Your task to perform on an android device: What is the news today? Image 0: 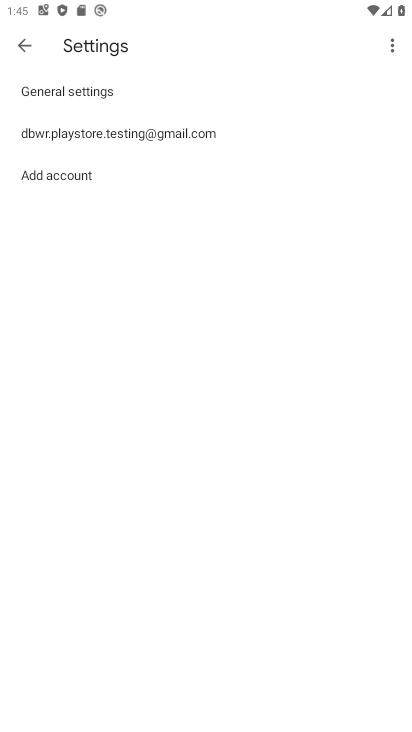
Step 0: press back button
Your task to perform on an android device: What is the news today? Image 1: 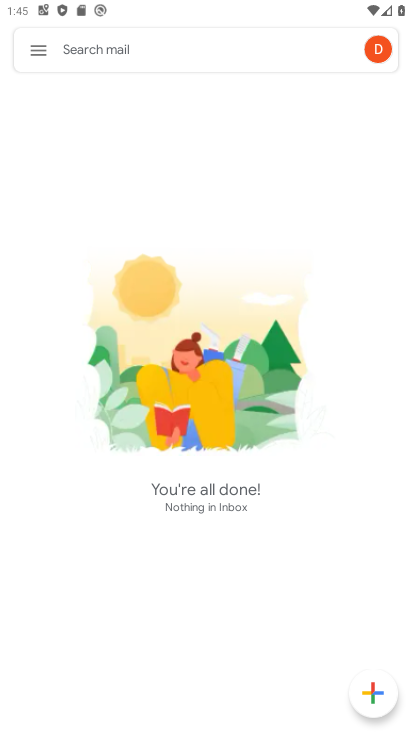
Step 1: press back button
Your task to perform on an android device: What is the news today? Image 2: 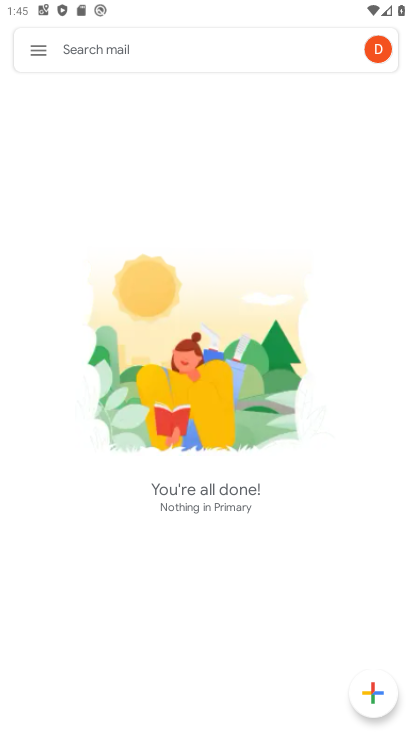
Step 2: press home button
Your task to perform on an android device: What is the news today? Image 3: 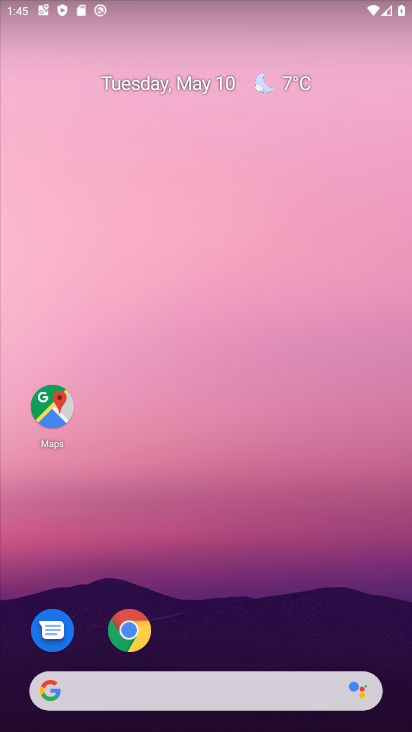
Step 3: drag from (233, 622) to (149, 31)
Your task to perform on an android device: What is the news today? Image 4: 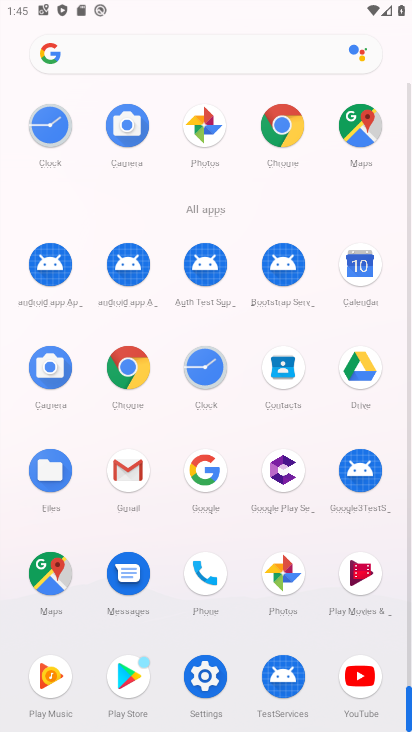
Step 4: click (125, 368)
Your task to perform on an android device: What is the news today? Image 5: 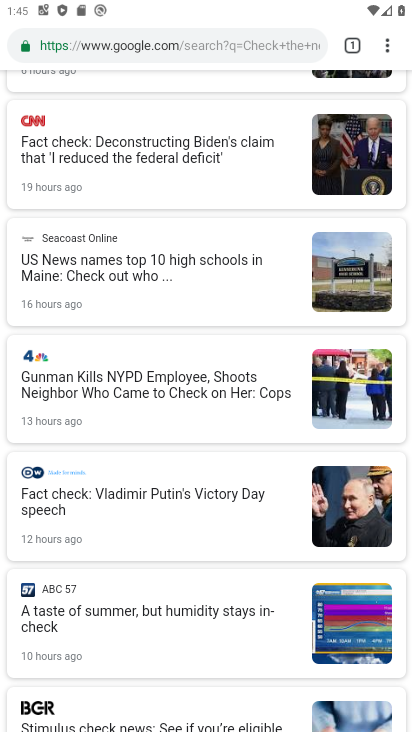
Step 5: click (174, 39)
Your task to perform on an android device: What is the news today? Image 6: 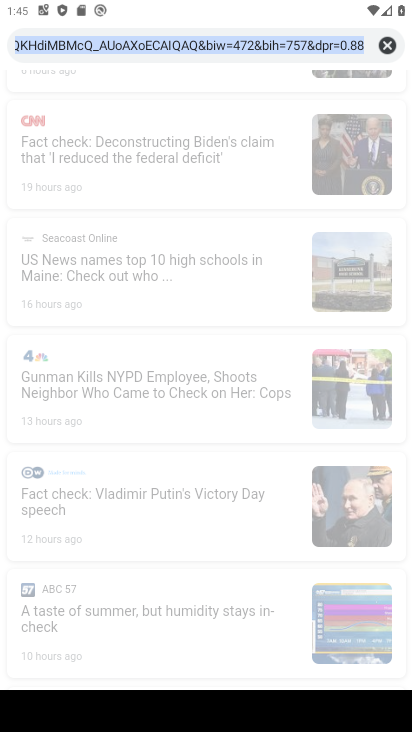
Step 6: click (385, 41)
Your task to perform on an android device: What is the news today? Image 7: 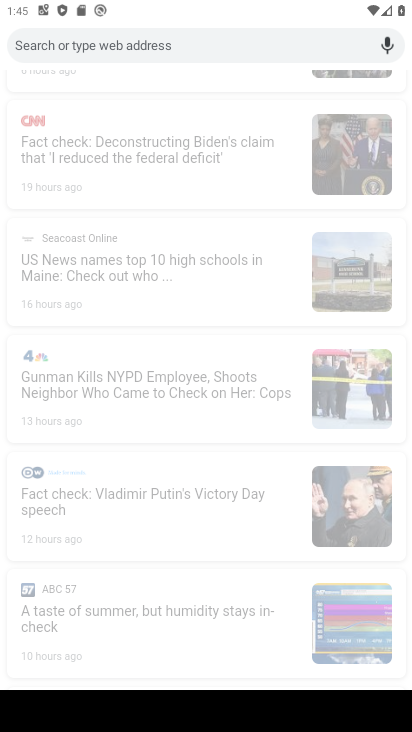
Step 7: type "What is the news today?"
Your task to perform on an android device: What is the news today? Image 8: 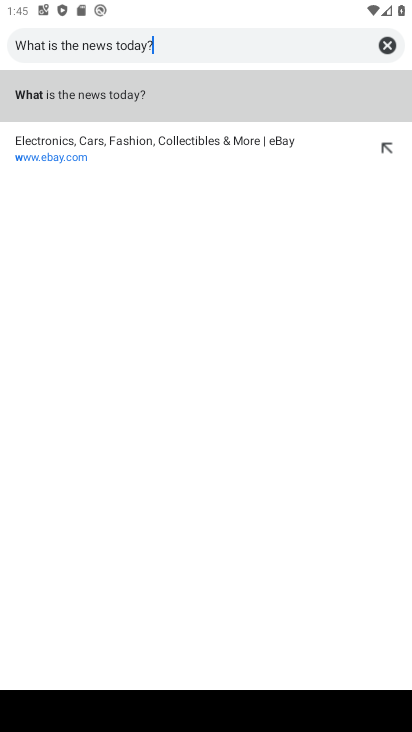
Step 8: type ""
Your task to perform on an android device: What is the news today? Image 9: 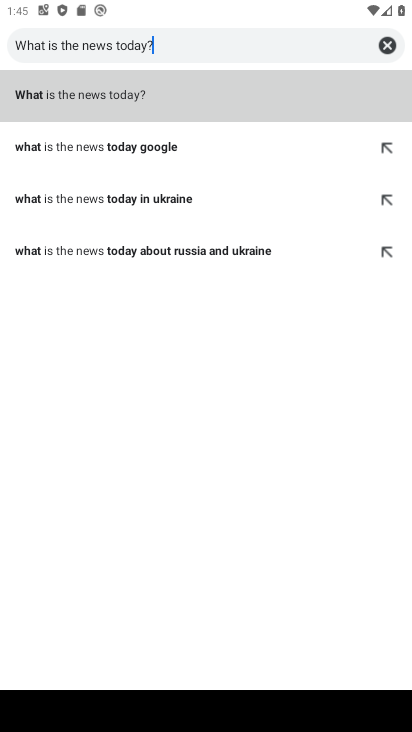
Step 9: click (150, 89)
Your task to perform on an android device: What is the news today? Image 10: 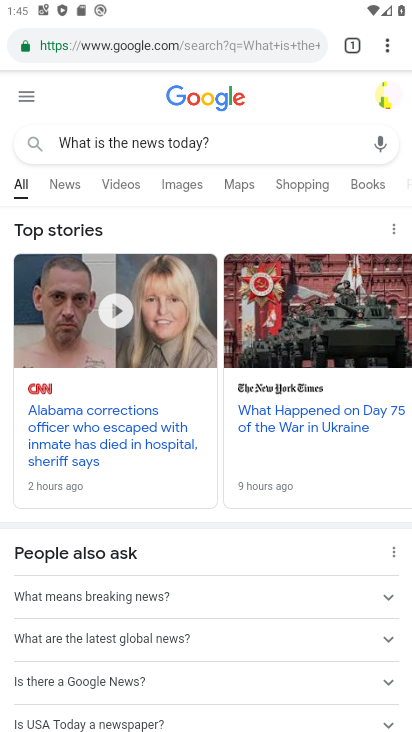
Step 10: task complete